Your task to perform on an android device: turn on javascript in the chrome app Image 0: 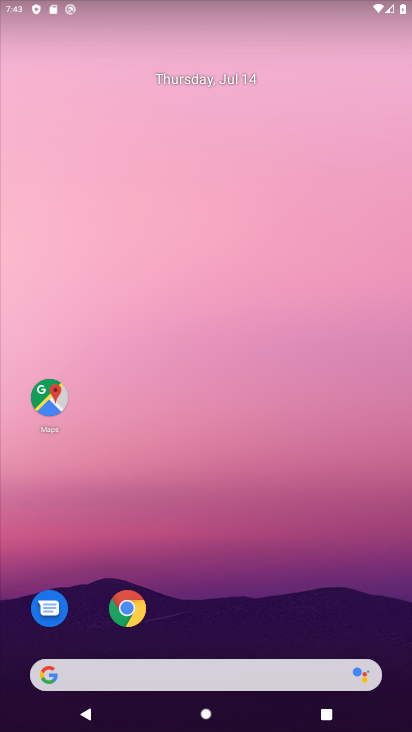
Step 0: click (124, 607)
Your task to perform on an android device: turn on javascript in the chrome app Image 1: 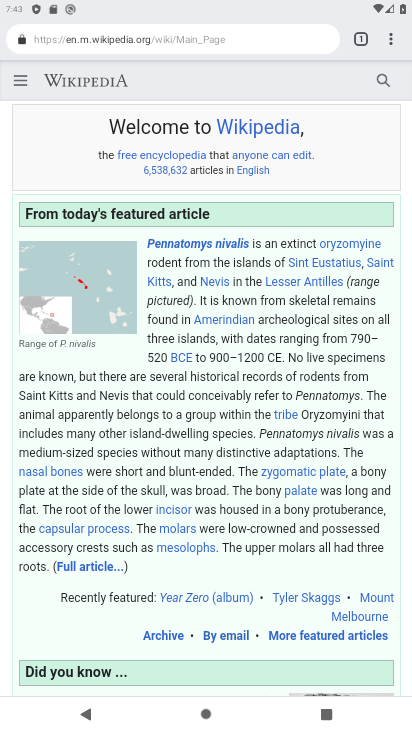
Step 1: click (391, 33)
Your task to perform on an android device: turn on javascript in the chrome app Image 2: 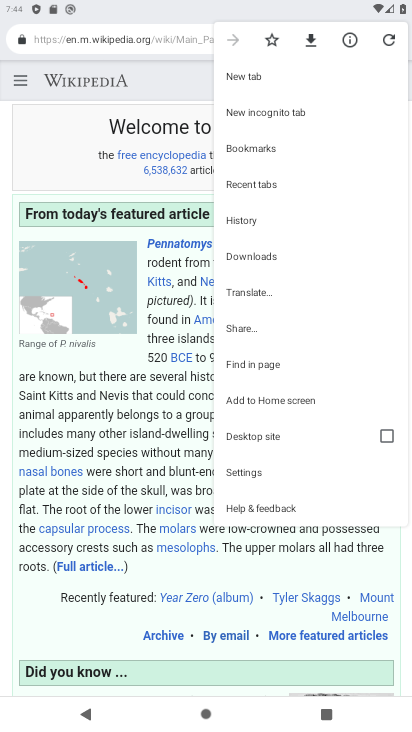
Step 2: click (247, 470)
Your task to perform on an android device: turn on javascript in the chrome app Image 3: 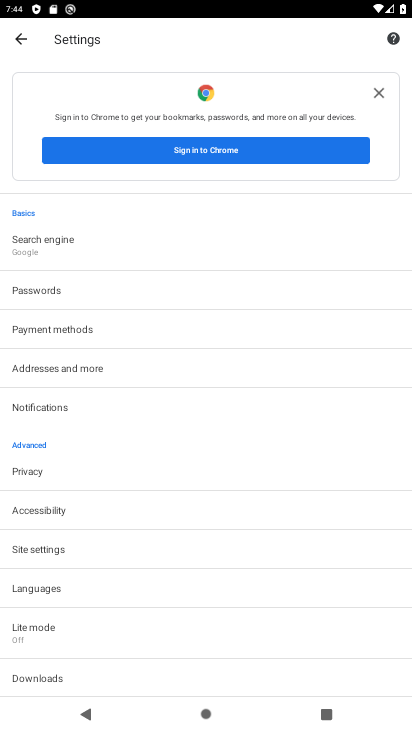
Step 3: click (57, 549)
Your task to perform on an android device: turn on javascript in the chrome app Image 4: 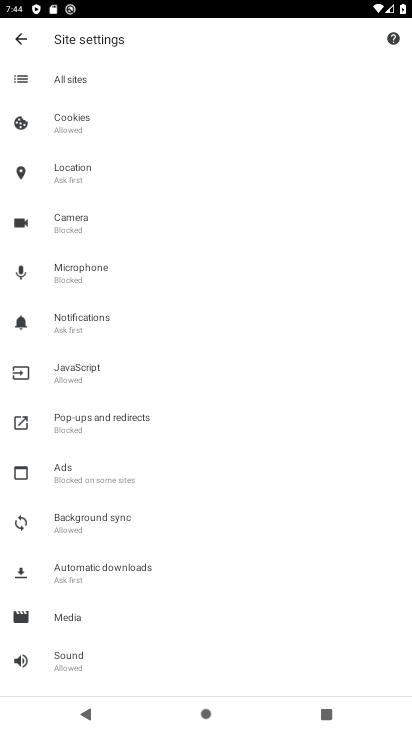
Step 4: click (81, 370)
Your task to perform on an android device: turn on javascript in the chrome app Image 5: 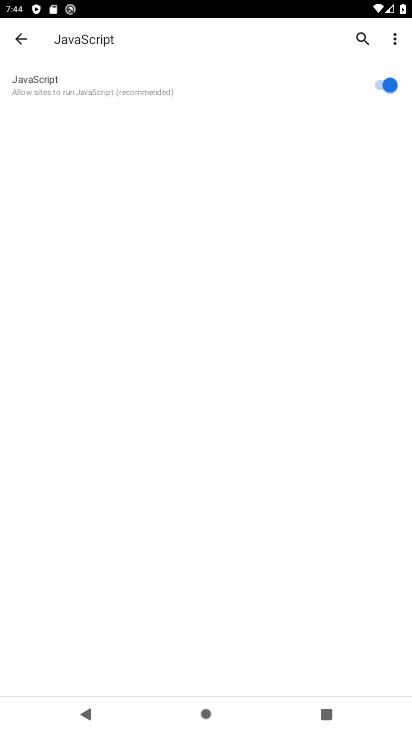
Step 5: task complete